Your task to perform on an android device: turn on showing notifications on the lock screen Image 0: 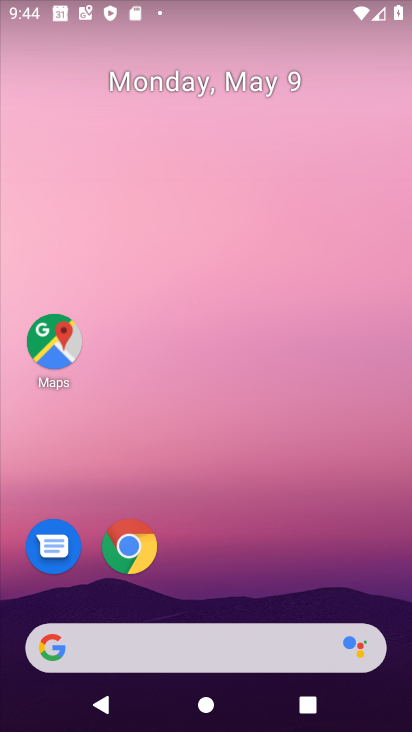
Step 0: drag from (221, 673) to (390, 175)
Your task to perform on an android device: turn on showing notifications on the lock screen Image 1: 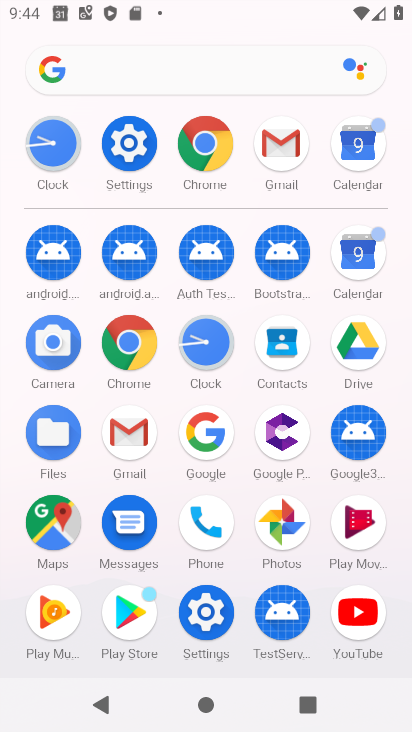
Step 1: click (141, 165)
Your task to perform on an android device: turn on showing notifications on the lock screen Image 2: 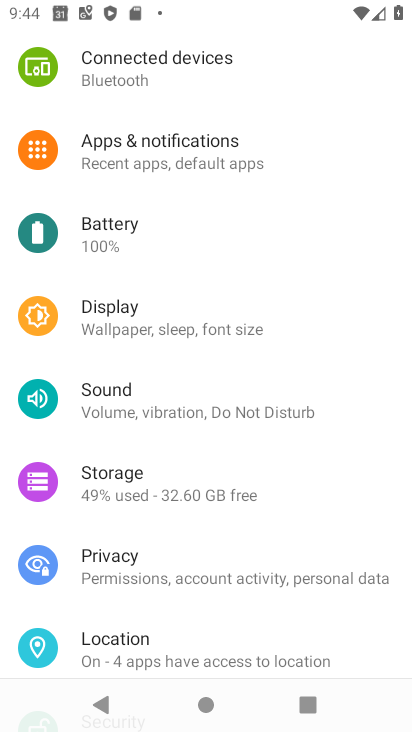
Step 2: click (240, 156)
Your task to perform on an android device: turn on showing notifications on the lock screen Image 3: 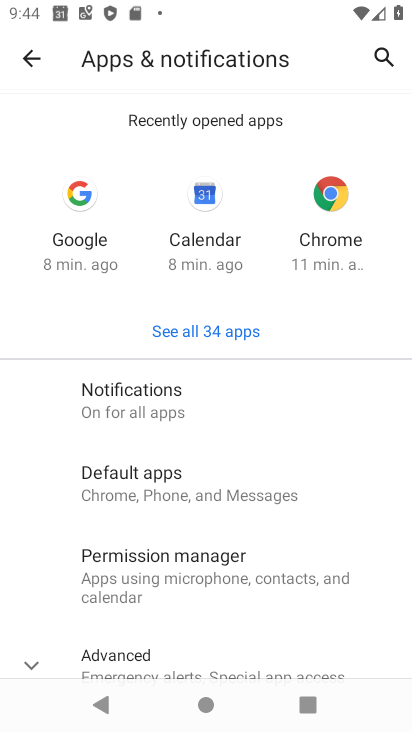
Step 3: click (188, 395)
Your task to perform on an android device: turn on showing notifications on the lock screen Image 4: 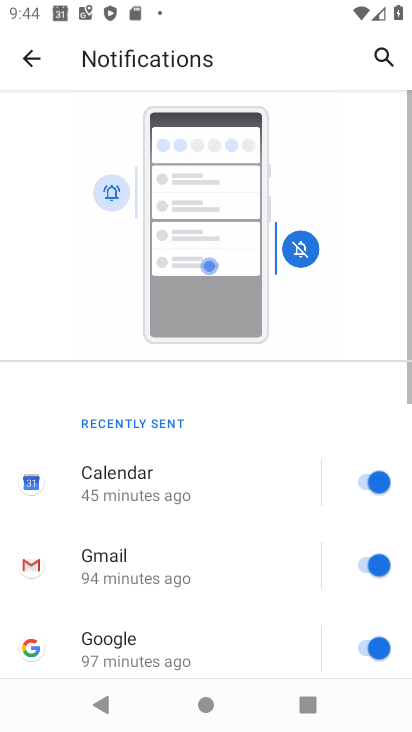
Step 4: drag from (240, 559) to (289, 109)
Your task to perform on an android device: turn on showing notifications on the lock screen Image 5: 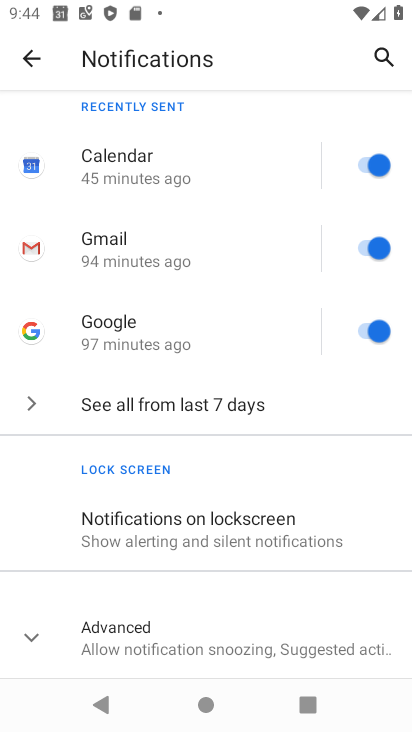
Step 5: click (180, 546)
Your task to perform on an android device: turn on showing notifications on the lock screen Image 6: 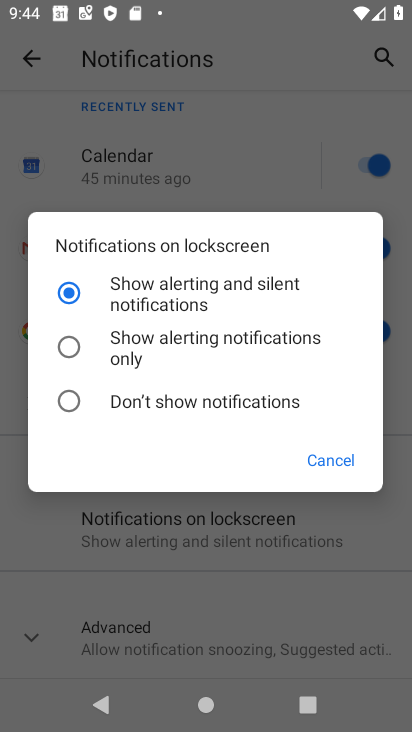
Step 6: task complete